Your task to perform on an android device: Search for bose soundlink mini on bestbuy.com, select the first entry, add it to the cart, then select checkout. Image 0: 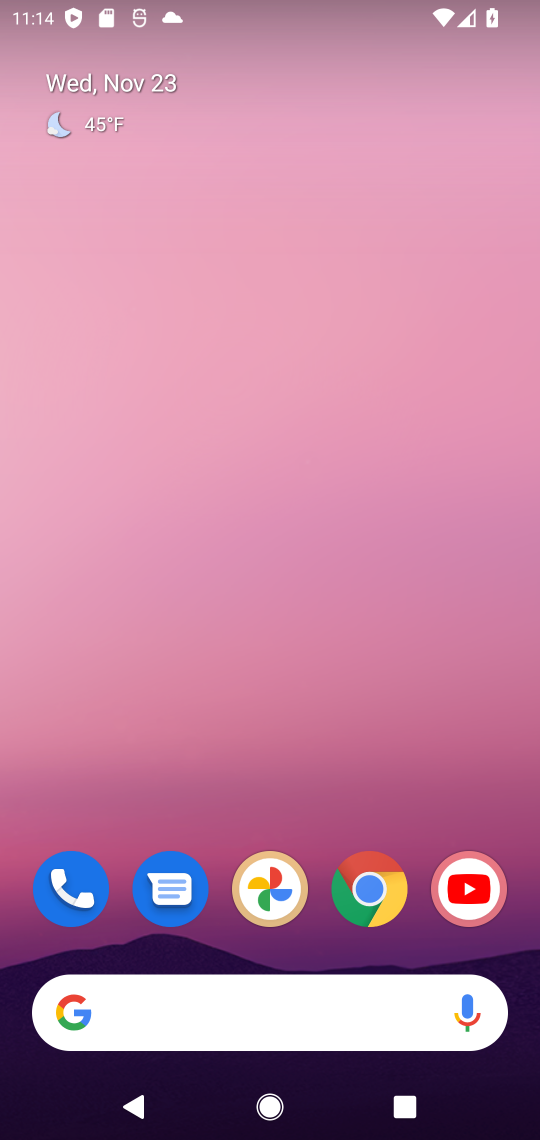
Step 0: click (366, 890)
Your task to perform on an android device: Search for bose soundlink mini on bestbuy.com, select the first entry, add it to the cart, then select checkout. Image 1: 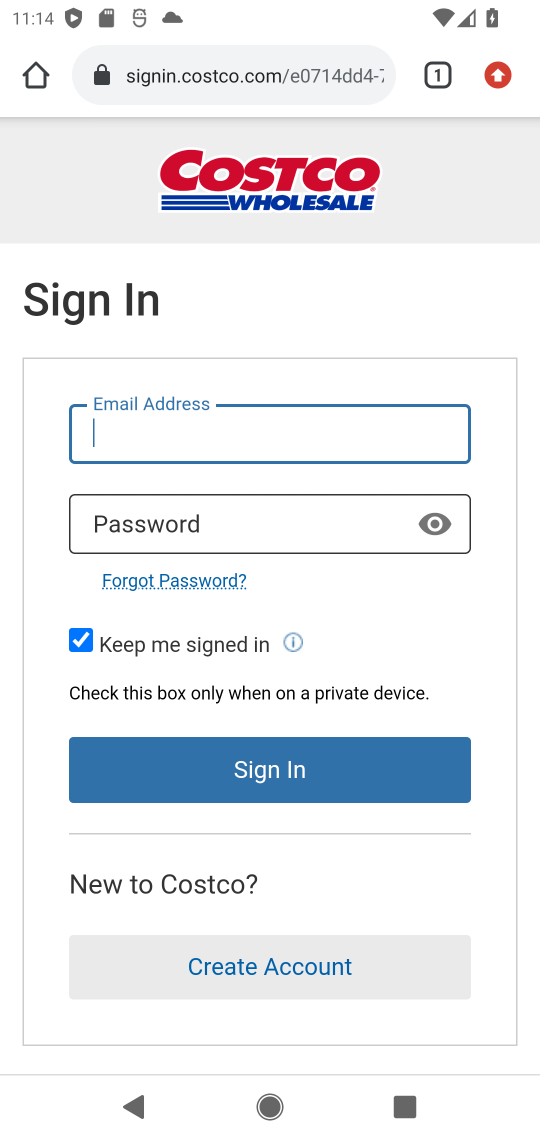
Step 1: click (209, 69)
Your task to perform on an android device: Search for bose soundlink mini on bestbuy.com, select the first entry, add it to the cart, then select checkout. Image 2: 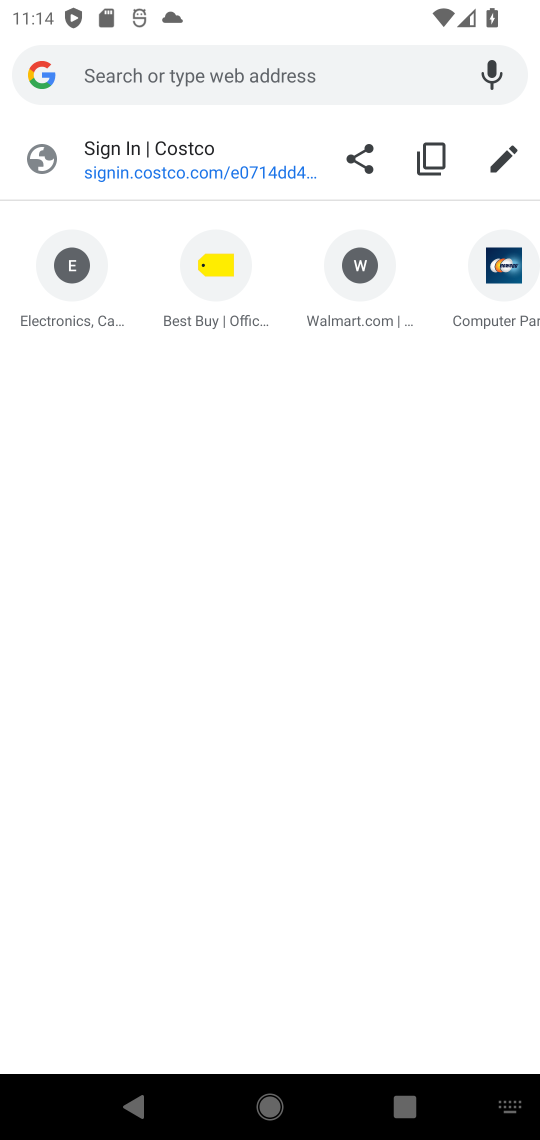
Step 2: click (215, 269)
Your task to perform on an android device: Search for bose soundlink mini on bestbuy.com, select the first entry, add it to the cart, then select checkout. Image 3: 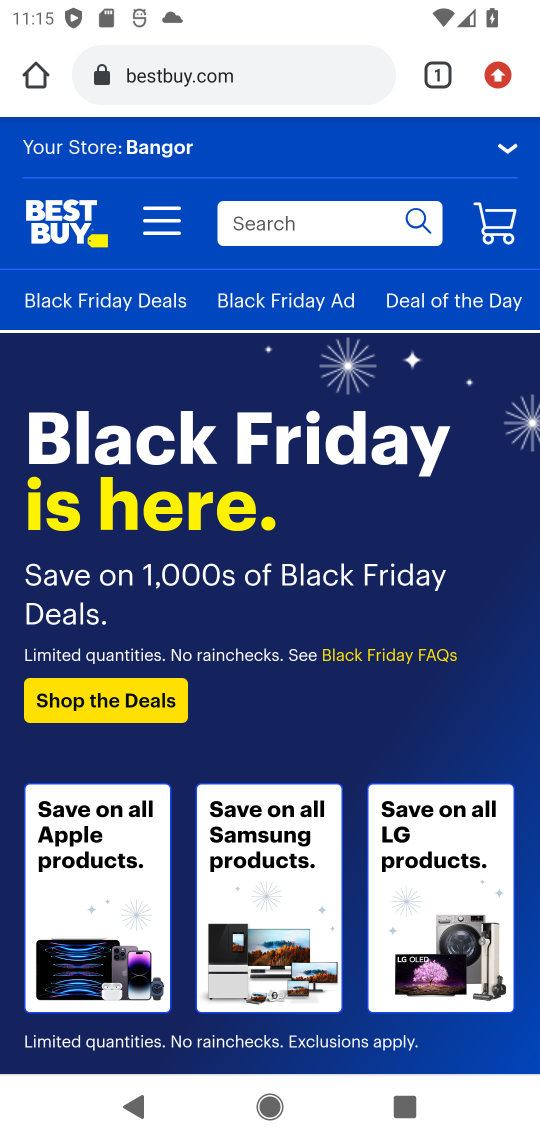
Step 3: click (300, 214)
Your task to perform on an android device: Search for bose soundlink mini on bestbuy.com, select the first entry, add it to the cart, then select checkout. Image 4: 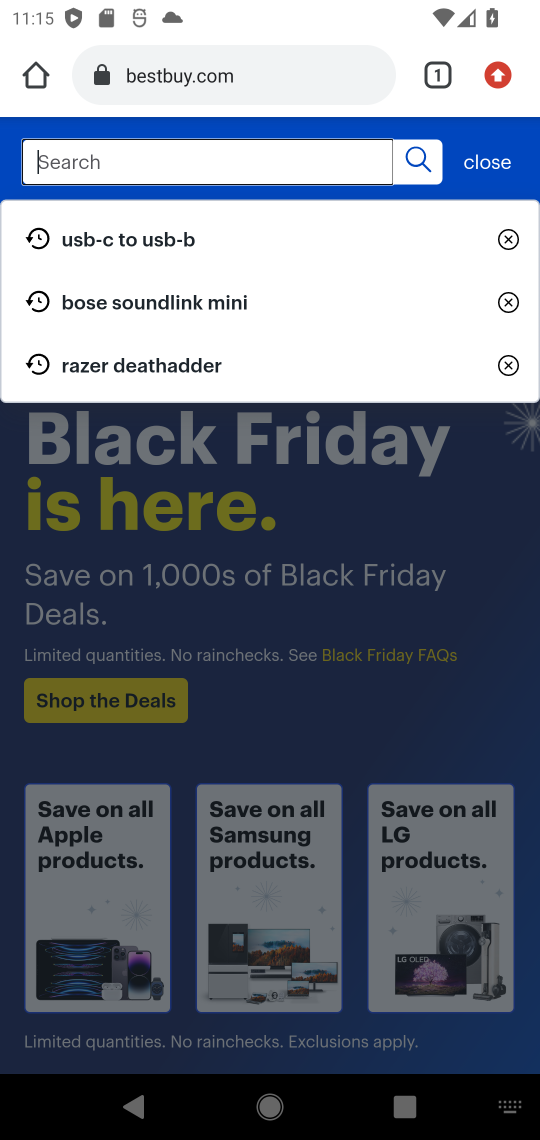
Step 4: type "bose soundlink mini "
Your task to perform on an android device: Search for bose soundlink mini on bestbuy.com, select the first entry, add it to the cart, then select checkout. Image 5: 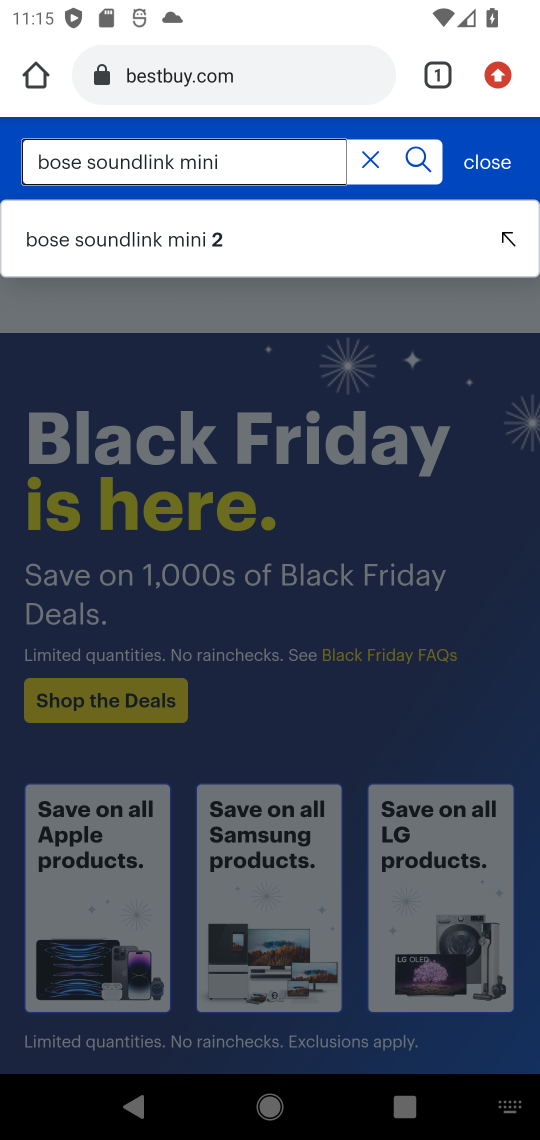
Step 5: click (138, 240)
Your task to perform on an android device: Search for bose soundlink mini on bestbuy.com, select the first entry, add it to the cart, then select checkout. Image 6: 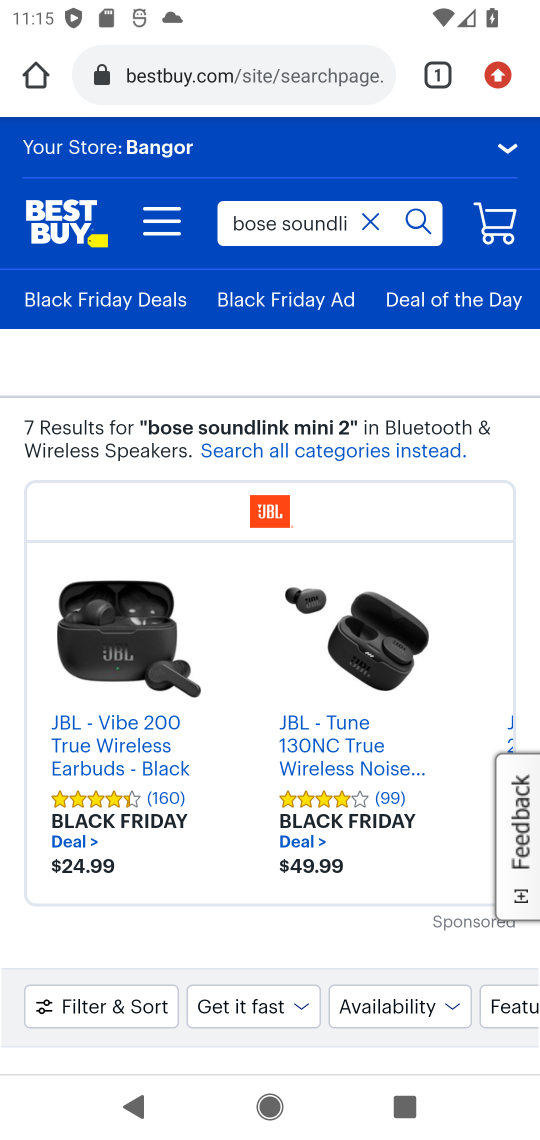
Step 6: task complete